Your task to perform on an android device: Search for the best deal on a 3d printer on aliexpress Image 0: 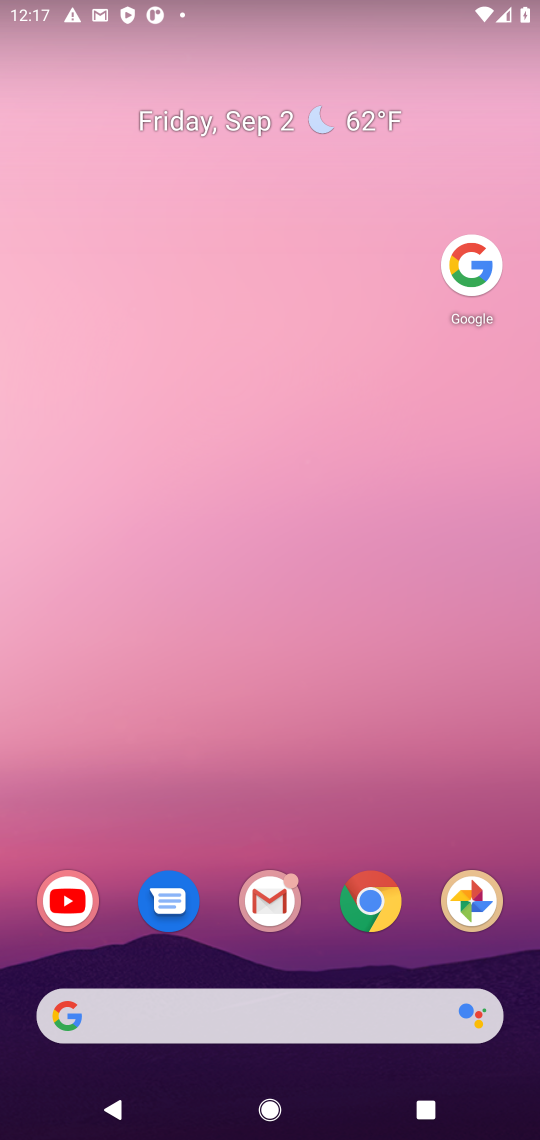
Step 0: drag from (286, 936) to (329, 332)
Your task to perform on an android device: Search for the best deal on a 3d printer on aliexpress Image 1: 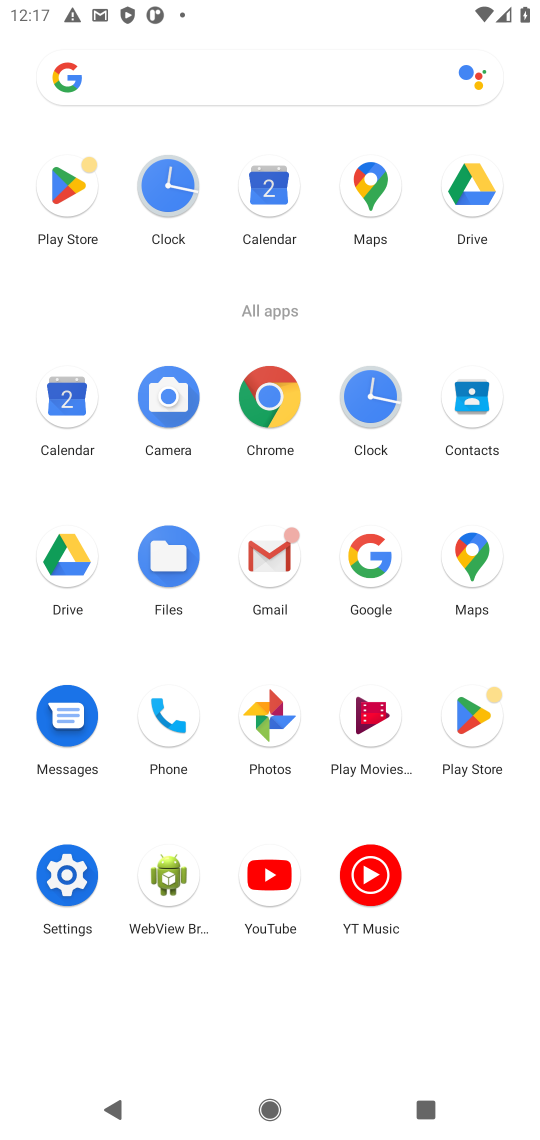
Step 1: click (362, 554)
Your task to perform on an android device: Search for the best deal on a 3d printer on aliexpress Image 2: 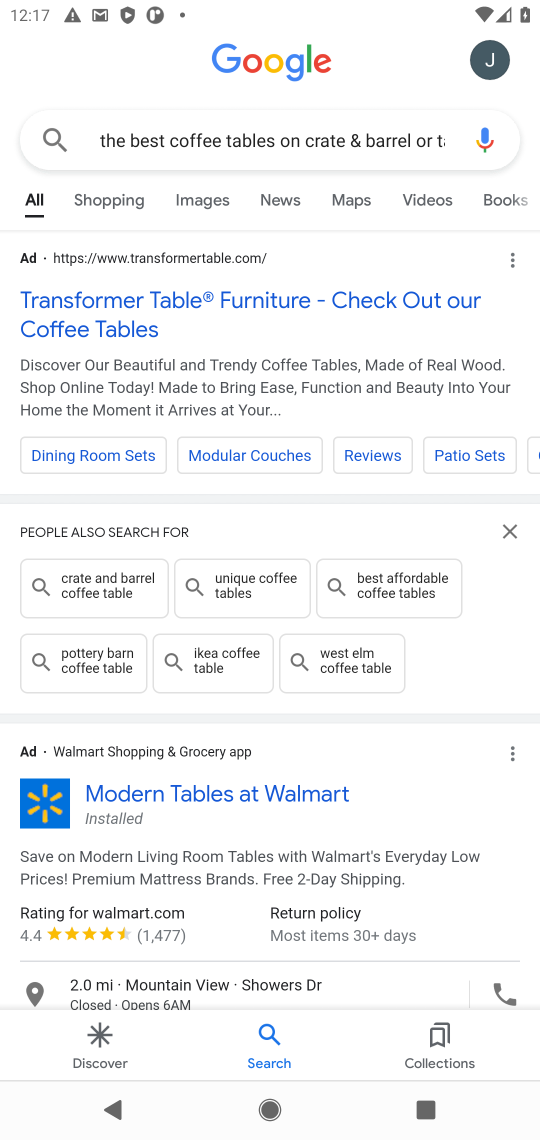
Step 2: click (422, 126)
Your task to perform on an android device: Search for the best deal on a 3d printer on aliexpress Image 3: 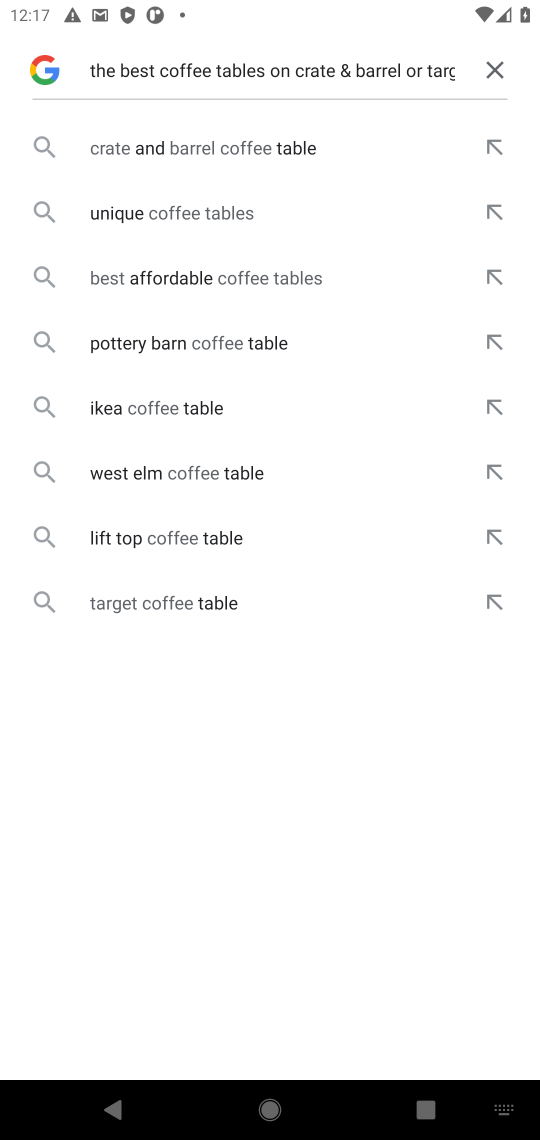
Step 3: click (498, 79)
Your task to perform on an android device: Search for the best deal on a 3d printer on aliexpress Image 4: 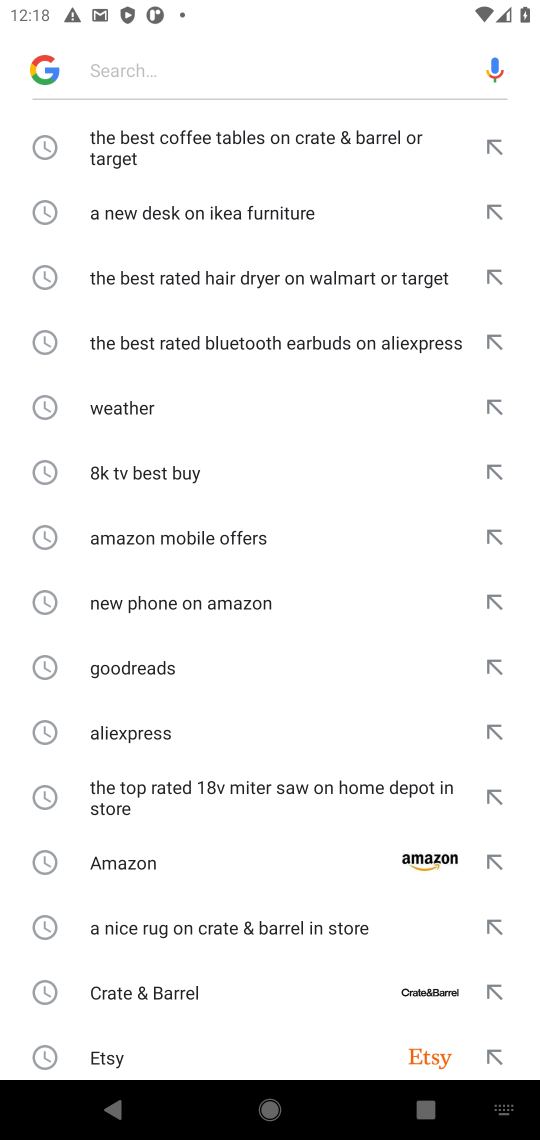
Step 4: click (254, 57)
Your task to perform on an android device: Search for the best deal on a 3d printer on aliexpress Image 5: 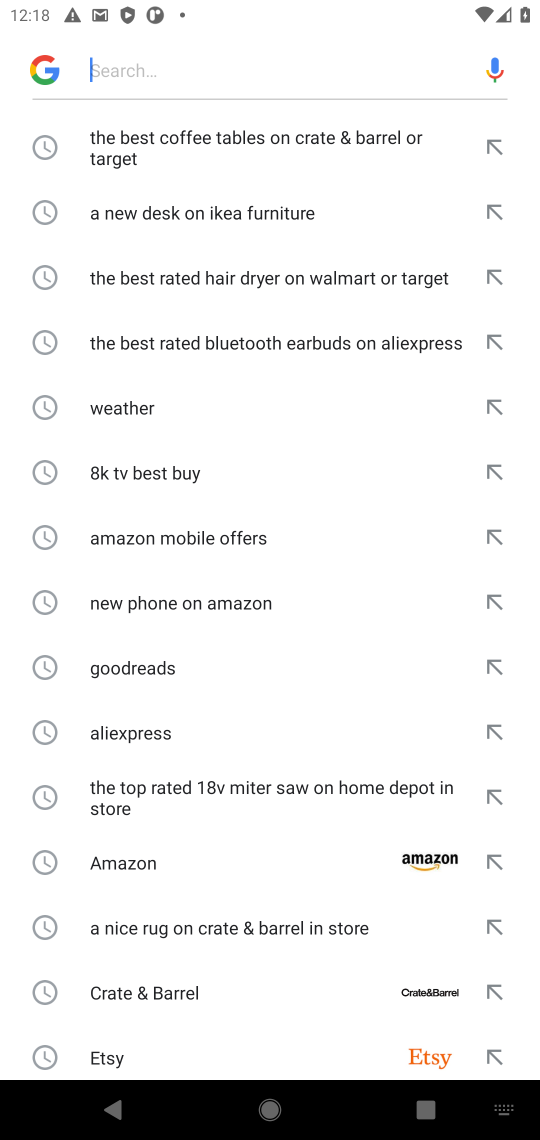
Step 5: type "the best deal on a 3d printer on aliexpress "
Your task to perform on an android device: Search for the best deal on a 3d printer on aliexpress Image 6: 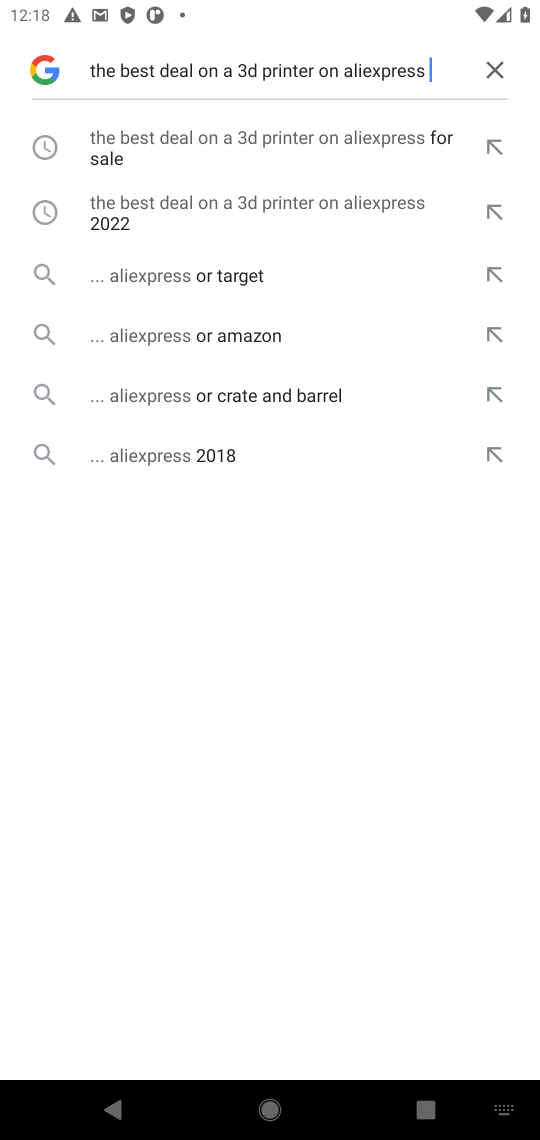
Step 6: click (222, 220)
Your task to perform on an android device: Search for the best deal on a 3d printer on aliexpress Image 7: 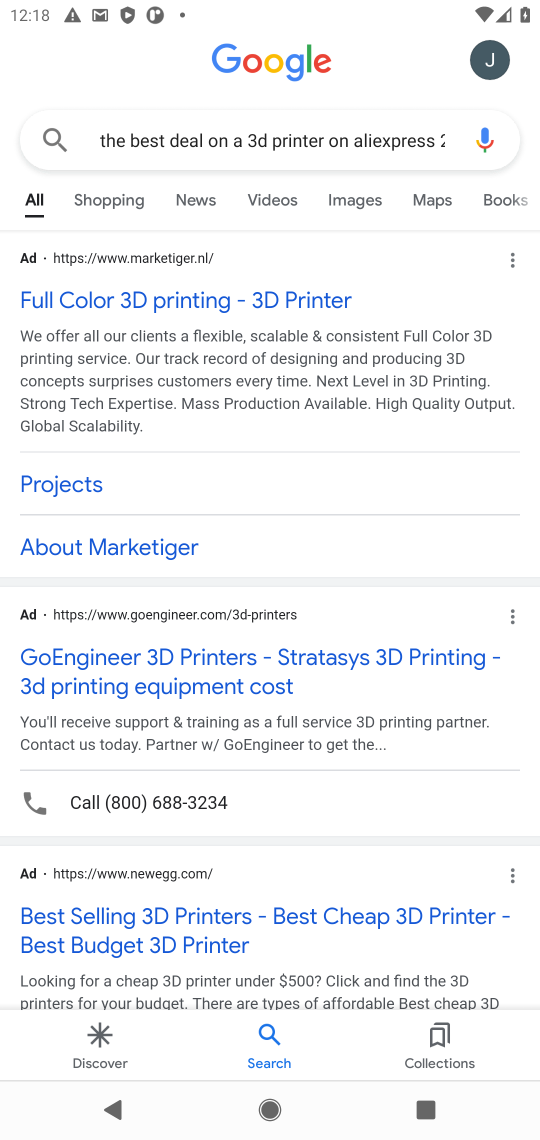
Step 7: drag from (251, 861) to (317, 378)
Your task to perform on an android device: Search for the best deal on a 3d printer on aliexpress Image 8: 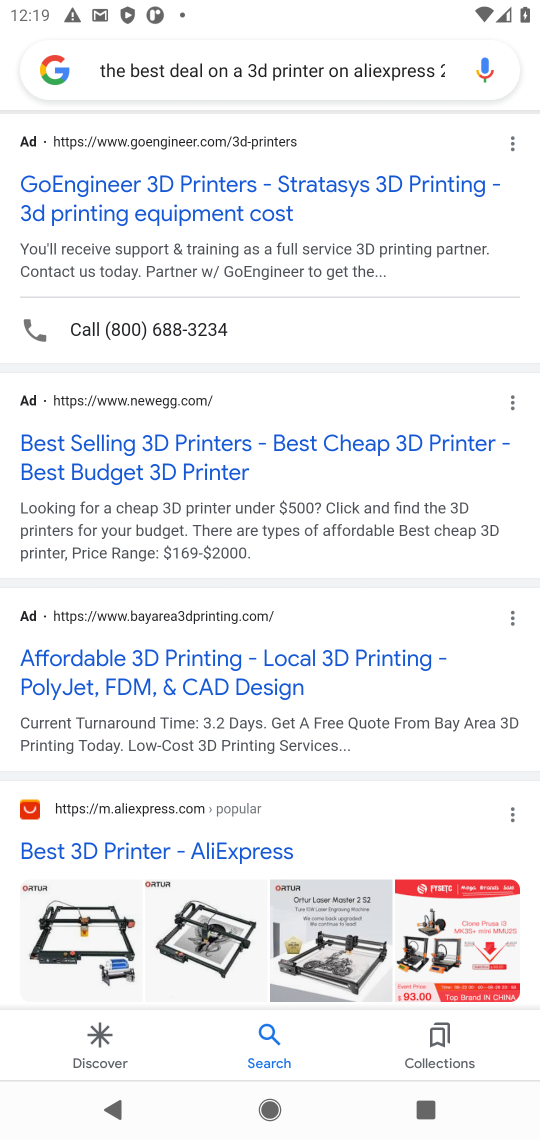
Step 8: drag from (318, 751) to (327, 293)
Your task to perform on an android device: Search for the best deal on a 3d printer on aliexpress Image 9: 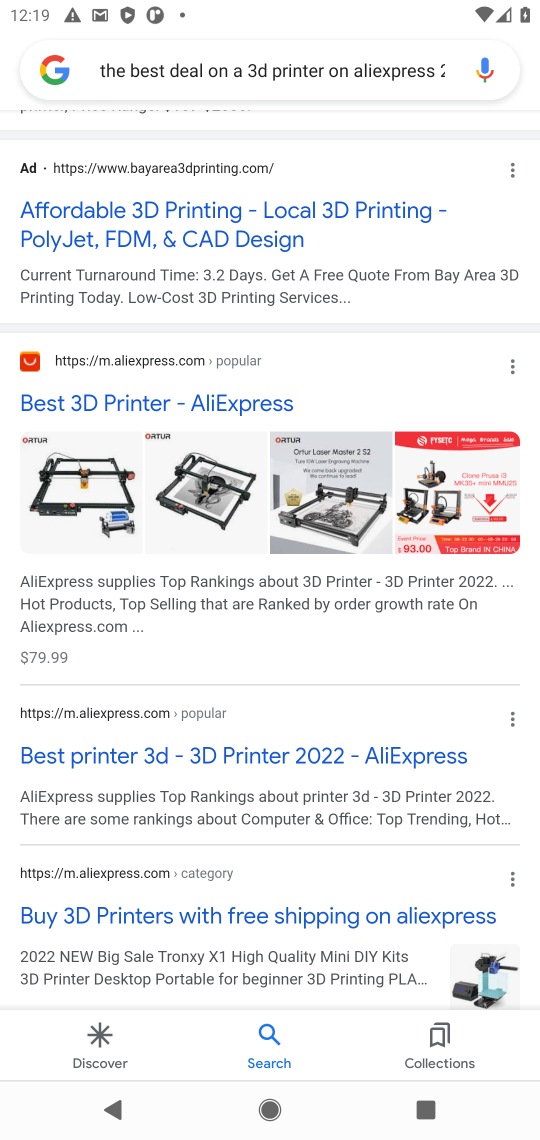
Step 9: click (226, 403)
Your task to perform on an android device: Search for the best deal on a 3d printer on aliexpress Image 10: 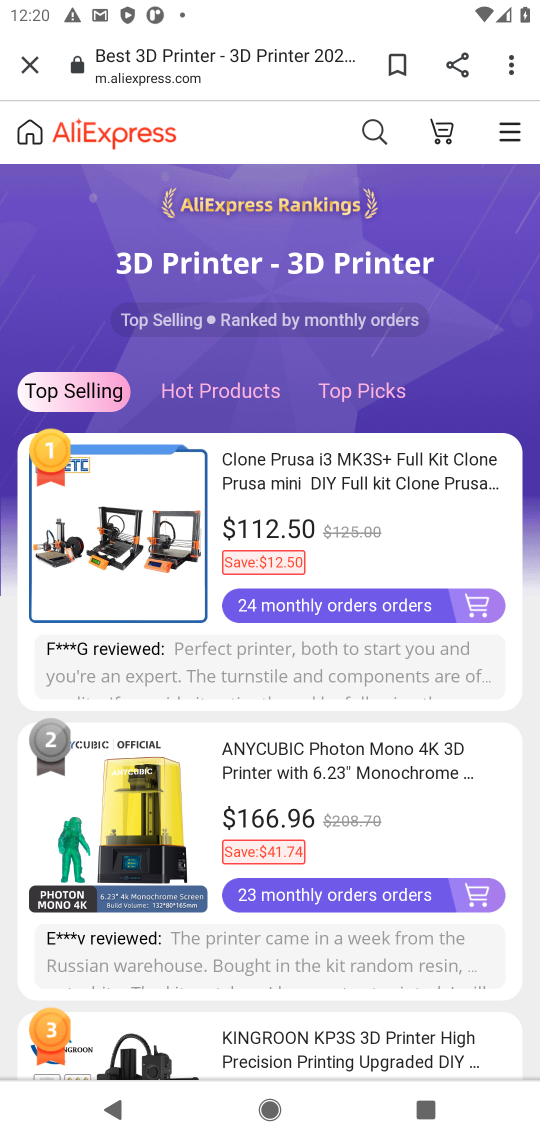
Step 10: task complete